Your task to perform on an android device: Open Chrome and go to settings Image 0: 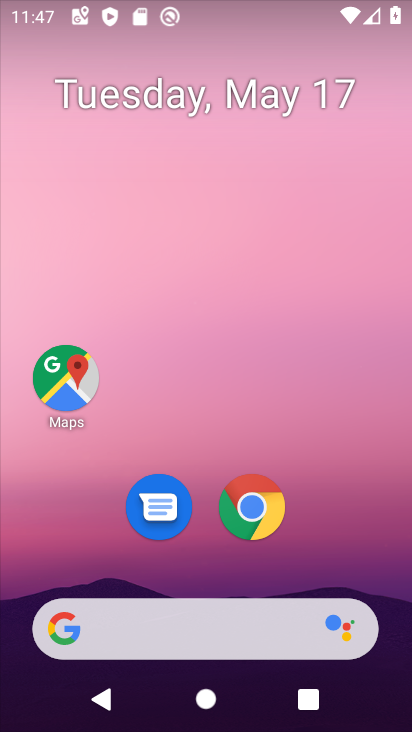
Step 0: drag from (308, 581) to (324, 143)
Your task to perform on an android device: Open Chrome and go to settings Image 1: 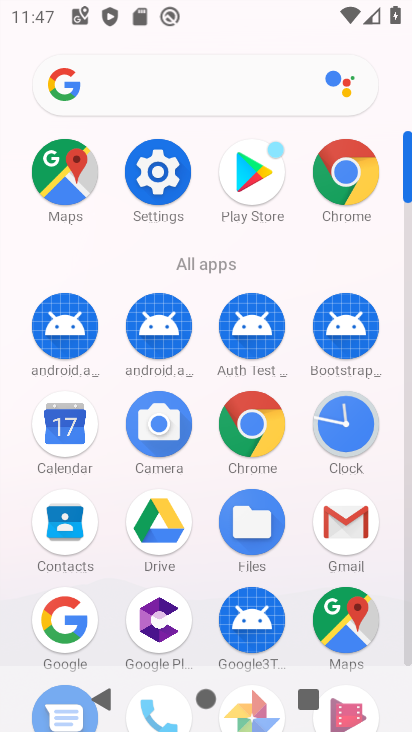
Step 1: click (333, 165)
Your task to perform on an android device: Open Chrome and go to settings Image 2: 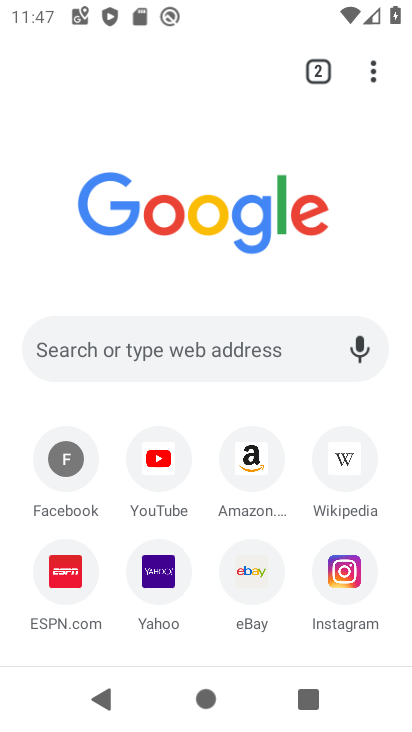
Step 2: click (360, 79)
Your task to perform on an android device: Open Chrome and go to settings Image 3: 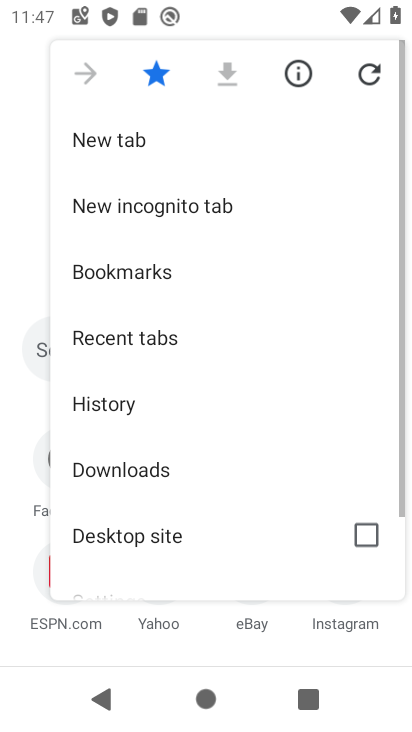
Step 3: drag from (190, 503) to (271, 130)
Your task to perform on an android device: Open Chrome and go to settings Image 4: 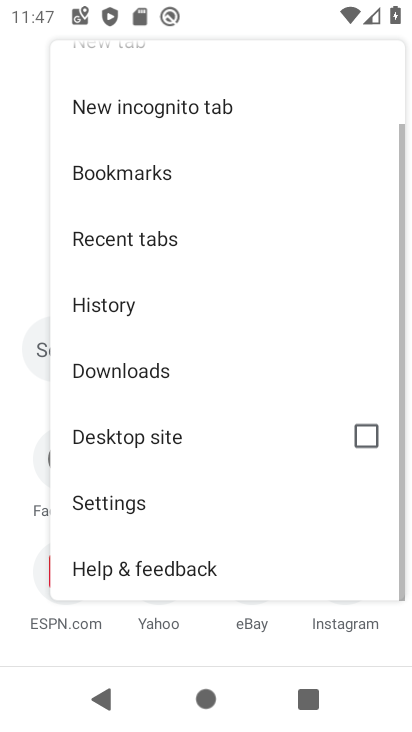
Step 4: click (129, 503)
Your task to perform on an android device: Open Chrome and go to settings Image 5: 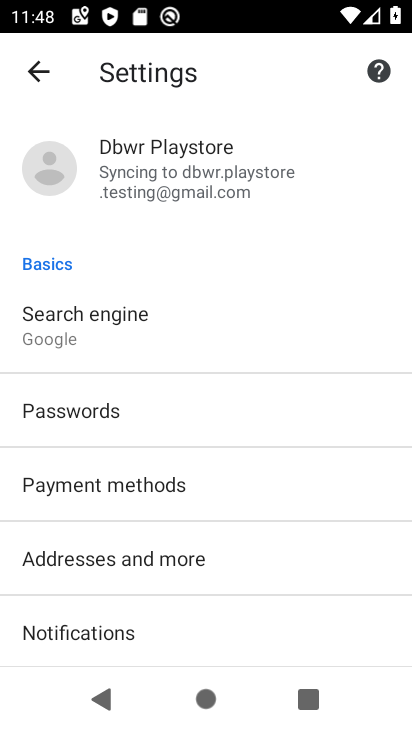
Step 5: task complete